Your task to perform on an android device: change the clock display to digital Image 0: 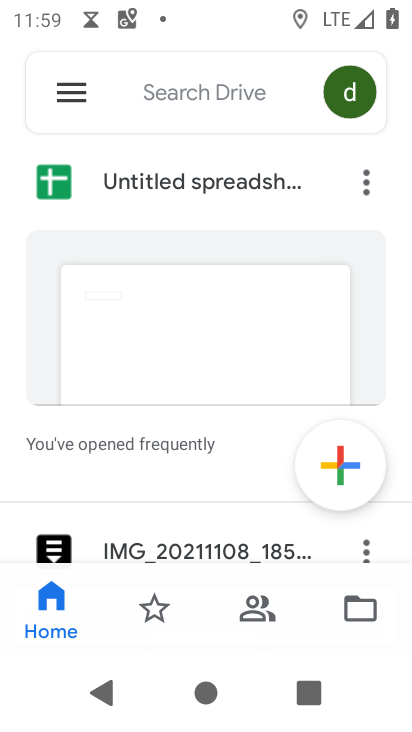
Step 0: press home button
Your task to perform on an android device: change the clock display to digital Image 1: 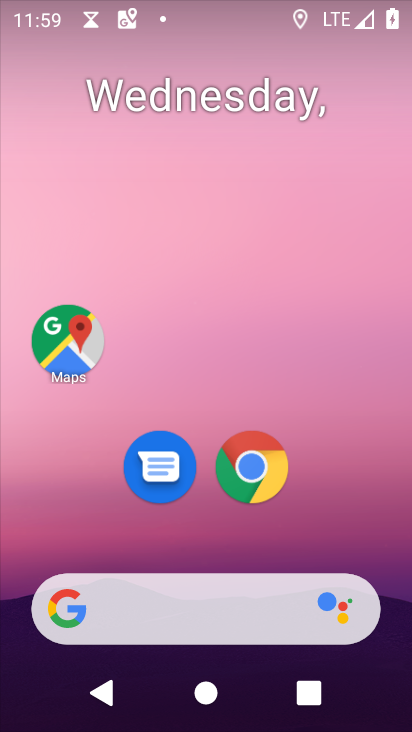
Step 1: click (251, 480)
Your task to perform on an android device: change the clock display to digital Image 2: 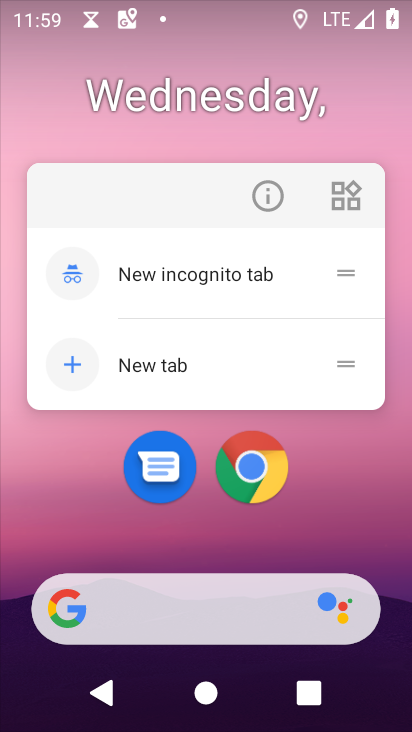
Step 2: drag from (205, 613) to (345, 173)
Your task to perform on an android device: change the clock display to digital Image 3: 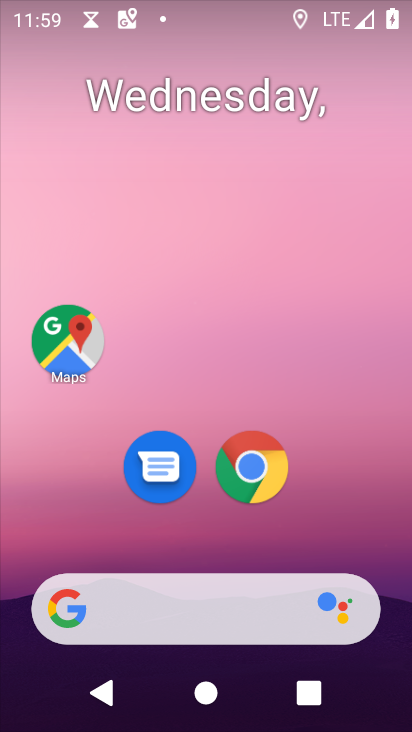
Step 3: drag from (196, 609) to (370, 69)
Your task to perform on an android device: change the clock display to digital Image 4: 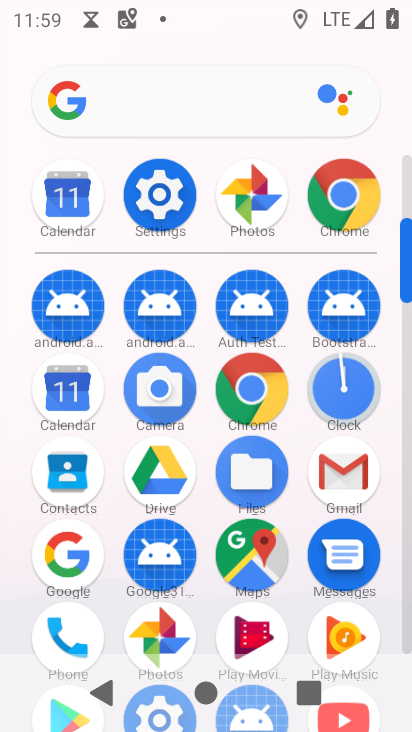
Step 4: click (349, 398)
Your task to perform on an android device: change the clock display to digital Image 5: 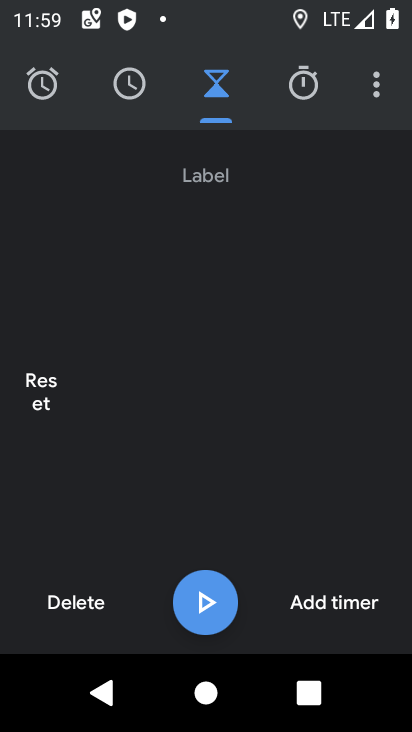
Step 5: click (376, 93)
Your task to perform on an android device: change the clock display to digital Image 6: 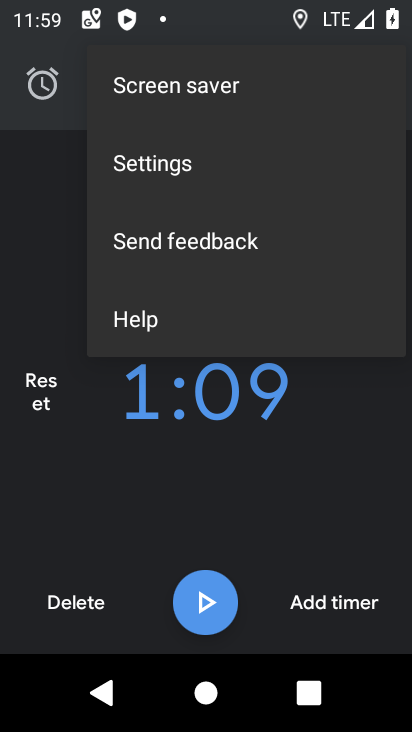
Step 6: click (171, 157)
Your task to perform on an android device: change the clock display to digital Image 7: 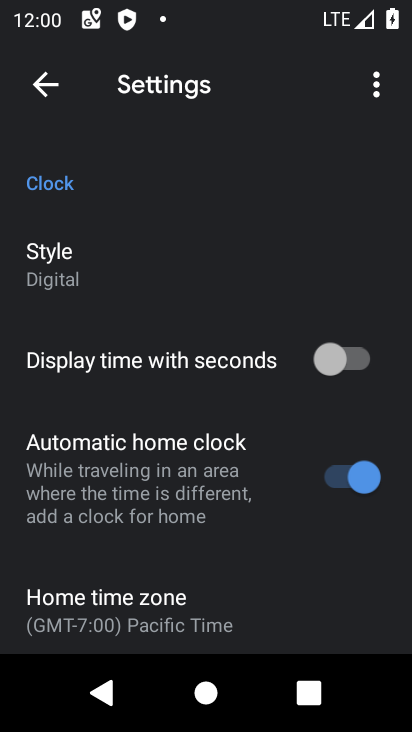
Step 7: task complete